Your task to perform on an android device: Toggle the flashlight Image 0: 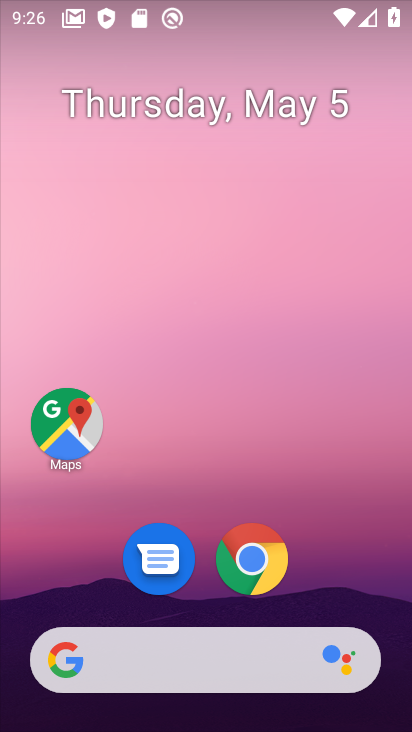
Step 0: drag from (56, 639) to (322, 172)
Your task to perform on an android device: Toggle the flashlight Image 1: 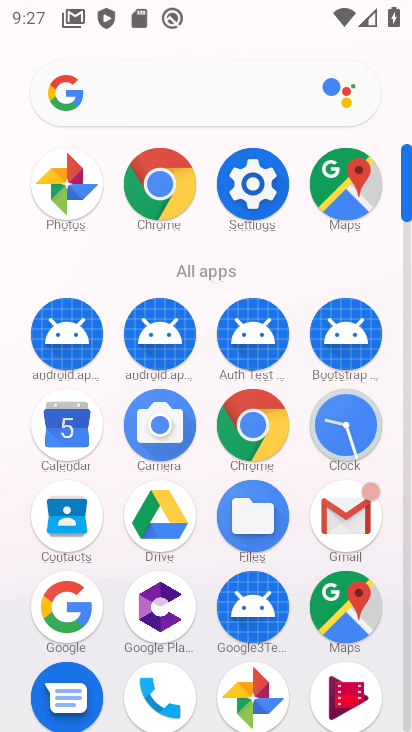
Step 1: click (251, 220)
Your task to perform on an android device: Toggle the flashlight Image 2: 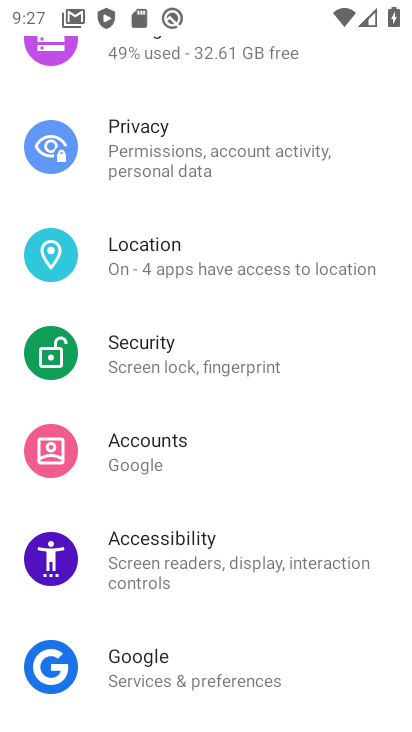
Step 2: task complete